Your task to perform on an android device: choose inbox layout in the gmail app Image 0: 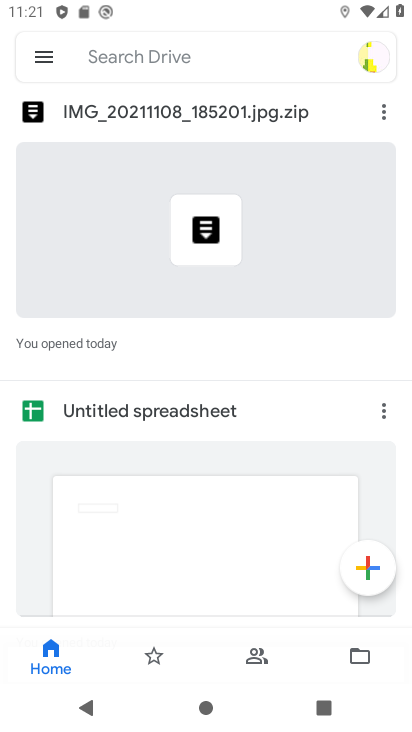
Step 0: press home button
Your task to perform on an android device: choose inbox layout in the gmail app Image 1: 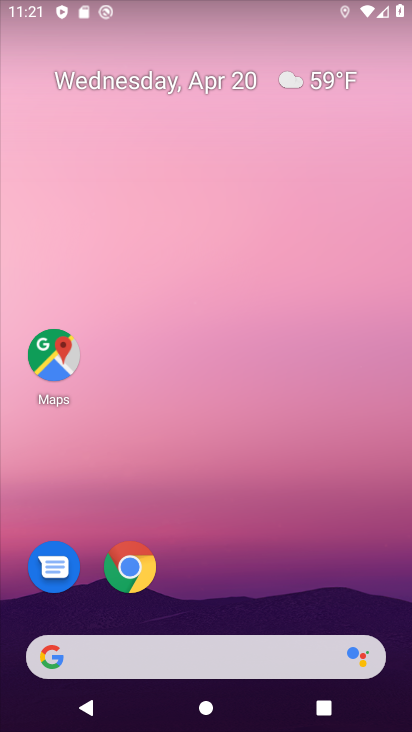
Step 1: drag from (240, 598) to (327, 40)
Your task to perform on an android device: choose inbox layout in the gmail app Image 2: 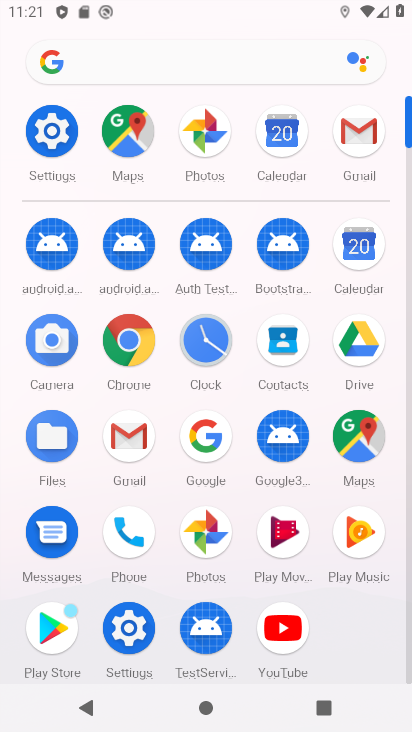
Step 2: click (370, 135)
Your task to perform on an android device: choose inbox layout in the gmail app Image 3: 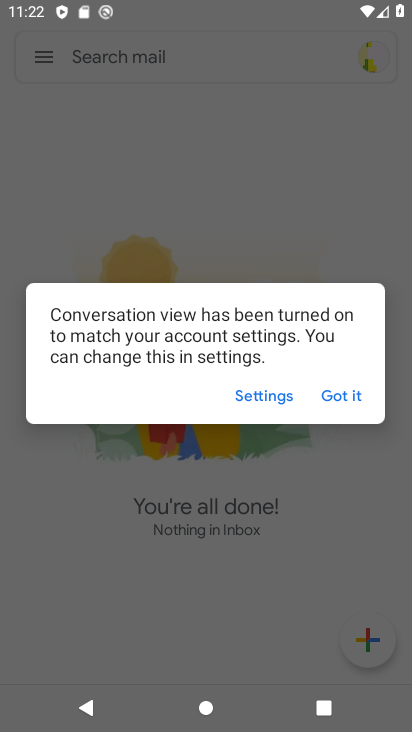
Step 3: click (339, 397)
Your task to perform on an android device: choose inbox layout in the gmail app Image 4: 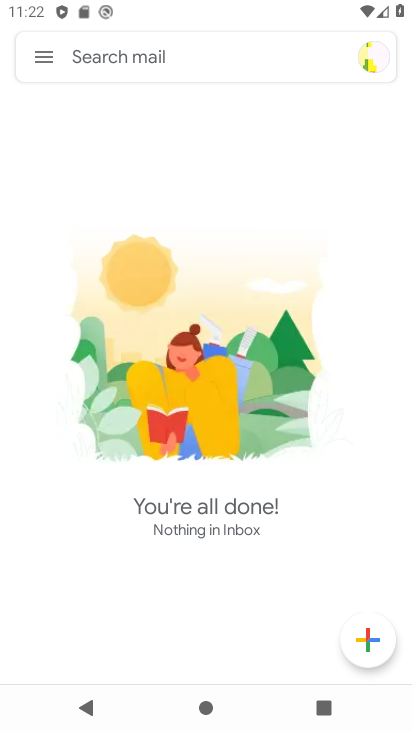
Step 4: click (50, 51)
Your task to perform on an android device: choose inbox layout in the gmail app Image 5: 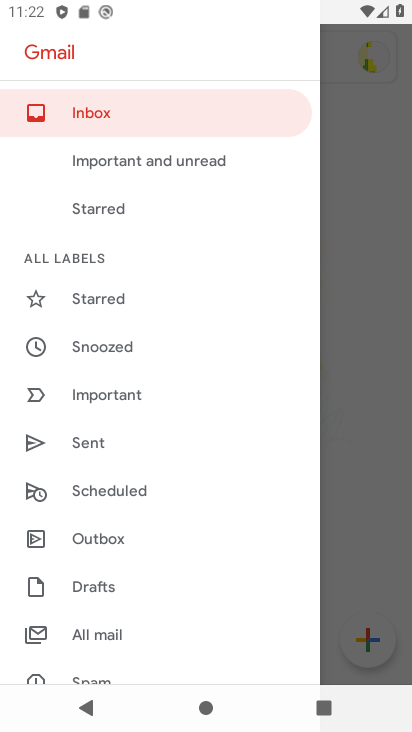
Step 5: drag from (96, 603) to (104, 474)
Your task to perform on an android device: choose inbox layout in the gmail app Image 6: 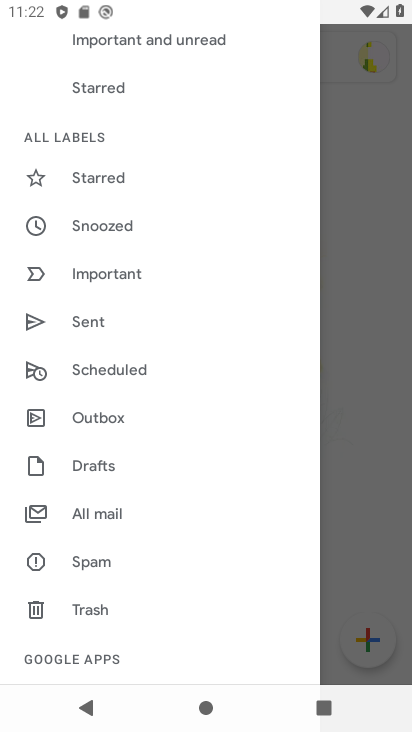
Step 6: drag from (122, 528) to (153, 428)
Your task to perform on an android device: choose inbox layout in the gmail app Image 7: 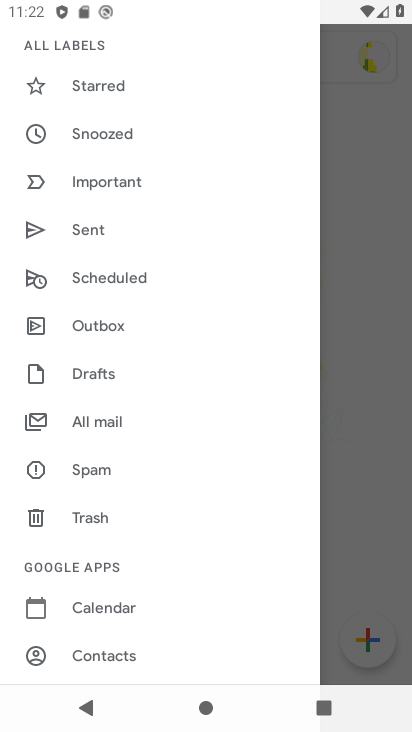
Step 7: drag from (143, 570) to (170, 487)
Your task to perform on an android device: choose inbox layout in the gmail app Image 8: 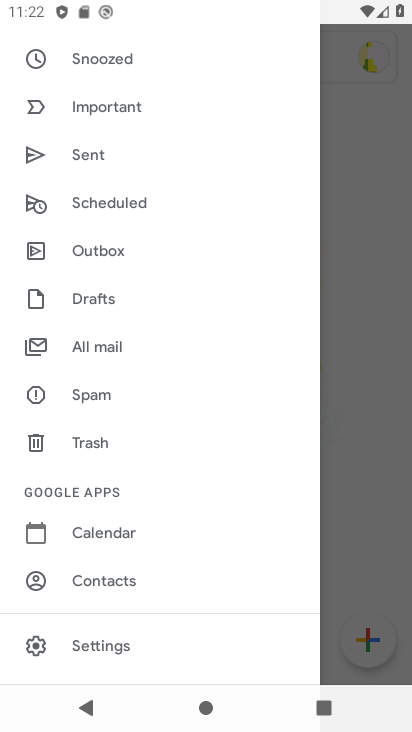
Step 8: click (55, 649)
Your task to perform on an android device: choose inbox layout in the gmail app Image 9: 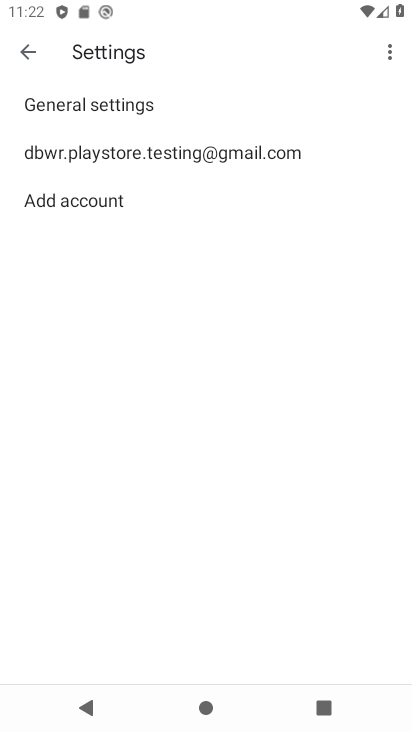
Step 9: click (309, 144)
Your task to perform on an android device: choose inbox layout in the gmail app Image 10: 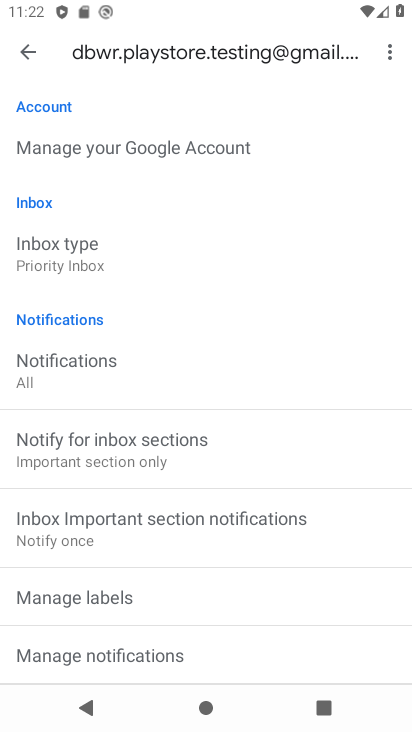
Step 10: click (128, 257)
Your task to perform on an android device: choose inbox layout in the gmail app Image 11: 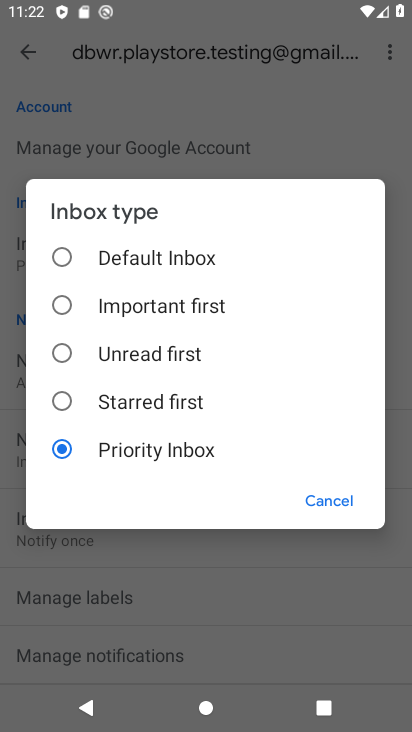
Step 11: click (136, 253)
Your task to perform on an android device: choose inbox layout in the gmail app Image 12: 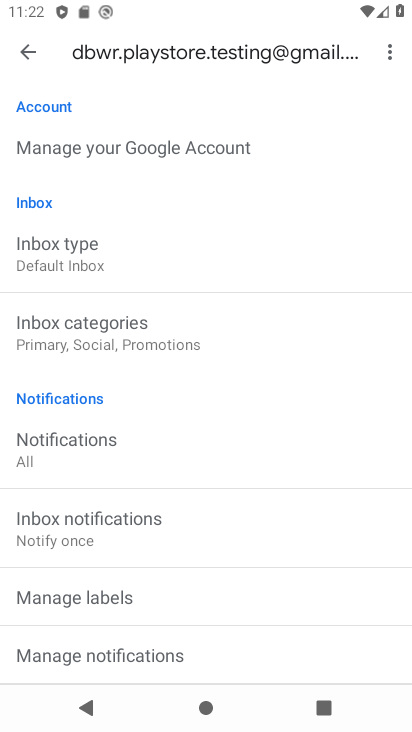
Step 12: task complete